Your task to perform on an android device: Open Google Chrome and click the shortcut for Amazon.com Image 0: 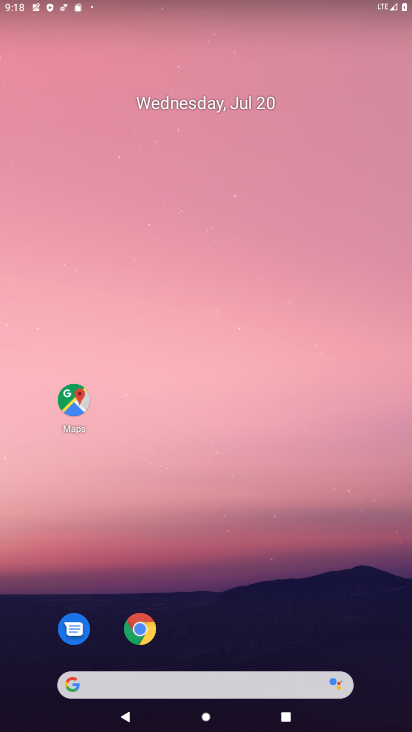
Step 0: press home button
Your task to perform on an android device: Open Google Chrome and click the shortcut for Amazon.com Image 1: 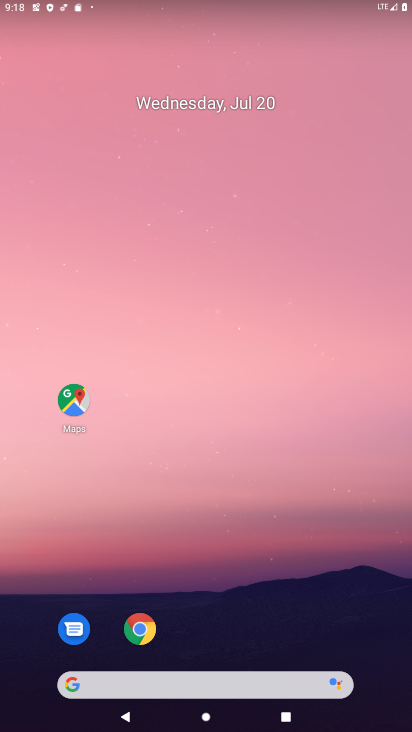
Step 1: click (138, 629)
Your task to perform on an android device: Open Google Chrome and click the shortcut for Amazon.com Image 2: 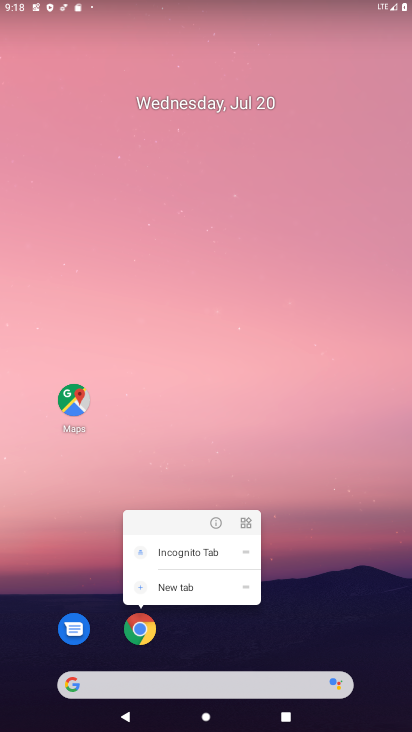
Step 2: click (138, 629)
Your task to perform on an android device: Open Google Chrome and click the shortcut for Amazon.com Image 3: 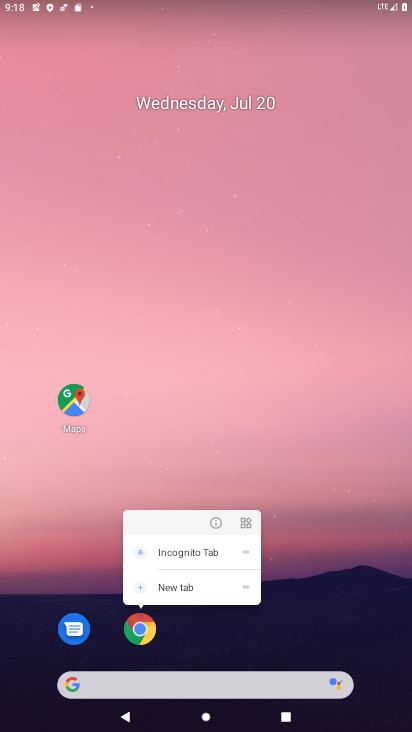
Step 3: click (138, 629)
Your task to perform on an android device: Open Google Chrome and click the shortcut for Amazon.com Image 4: 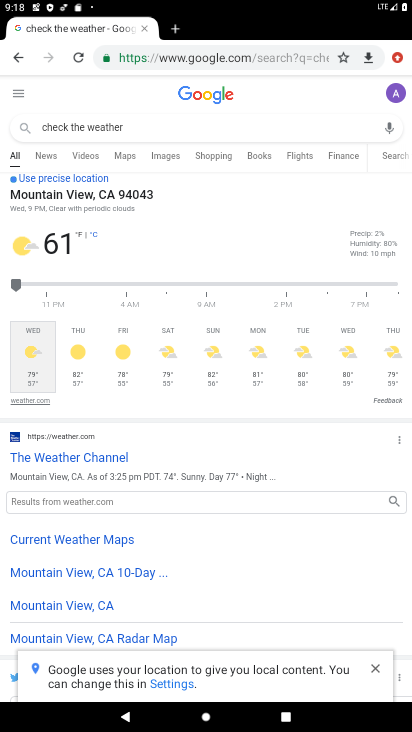
Step 4: click (181, 32)
Your task to perform on an android device: Open Google Chrome and click the shortcut for Amazon.com Image 5: 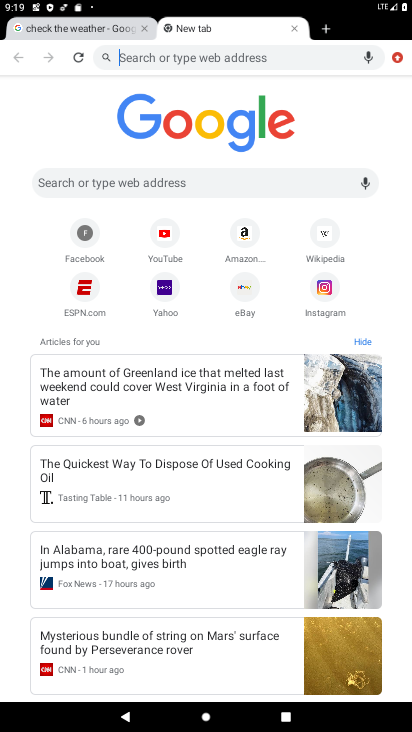
Step 5: click (228, 245)
Your task to perform on an android device: Open Google Chrome and click the shortcut for Amazon.com Image 6: 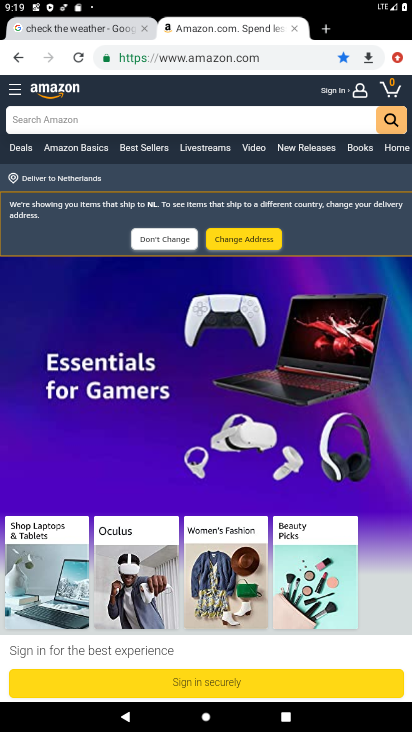
Step 6: task complete